Your task to perform on an android device: move a message to another label in the gmail app Image 0: 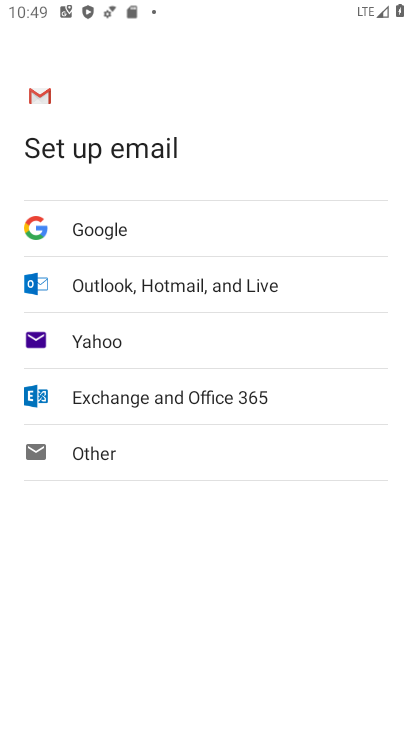
Step 0: press home button
Your task to perform on an android device: move a message to another label in the gmail app Image 1: 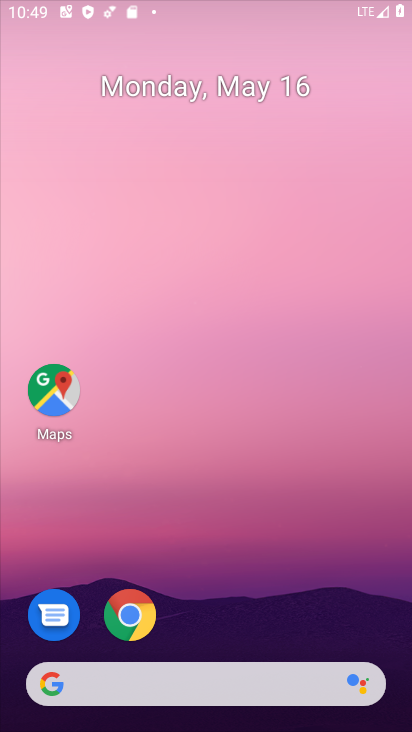
Step 1: drag from (263, 684) to (241, 198)
Your task to perform on an android device: move a message to another label in the gmail app Image 2: 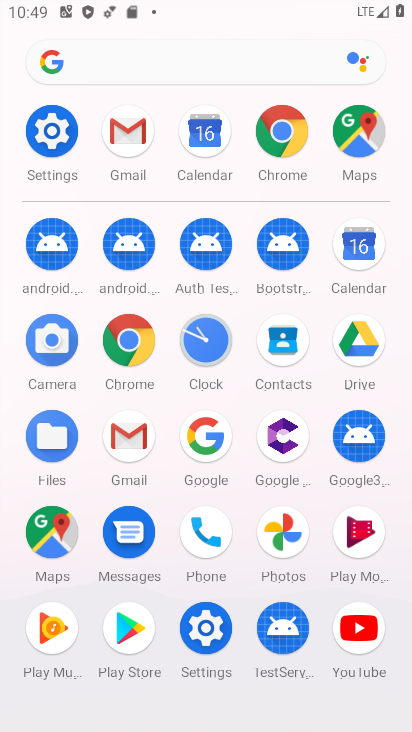
Step 2: click (126, 450)
Your task to perform on an android device: move a message to another label in the gmail app Image 3: 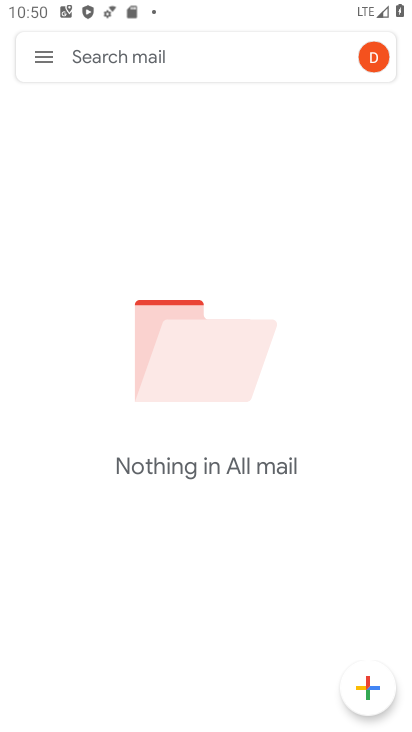
Step 3: task complete